Your task to perform on an android device: Open settings on Google Maps Image 0: 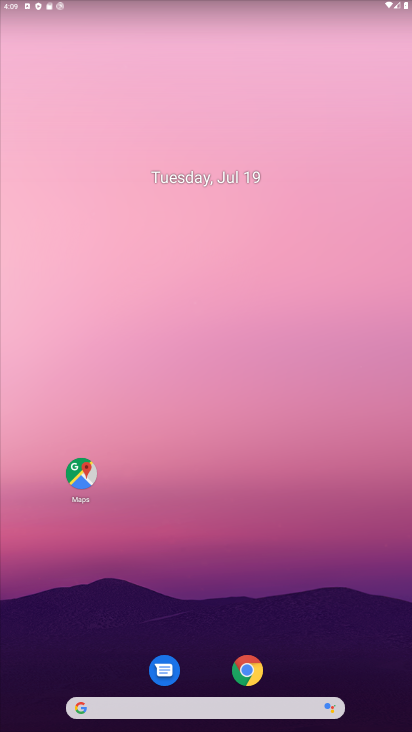
Step 0: drag from (317, 689) to (210, 12)
Your task to perform on an android device: Open settings on Google Maps Image 1: 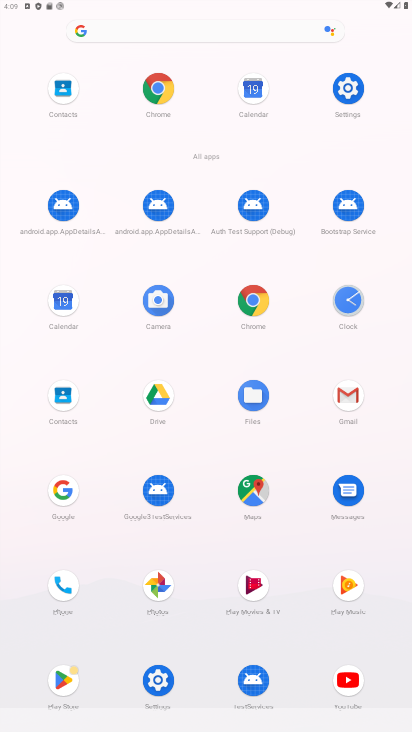
Step 1: click (258, 492)
Your task to perform on an android device: Open settings on Google Maps Image 2: 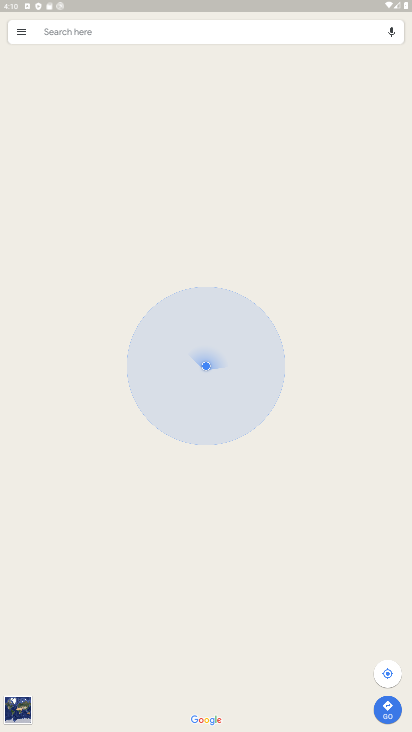
Step 2: click (10, 24)
Your task to perform on an android device: Open settings on Google Maps Image 3: 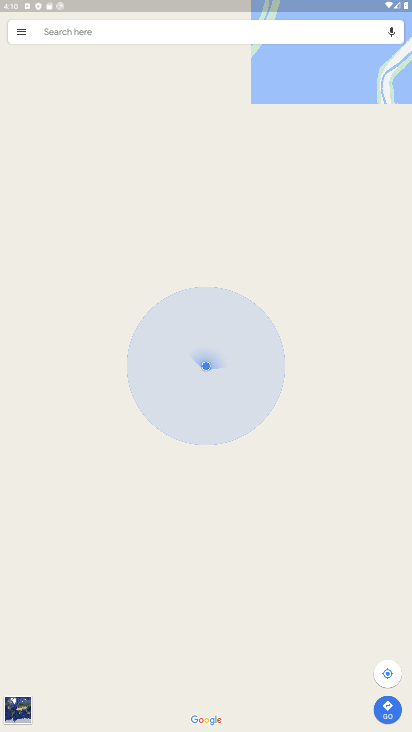
Step 3: click (18, 30)
Your task to perform on an android device: Open settings on Google Maps Image 4: 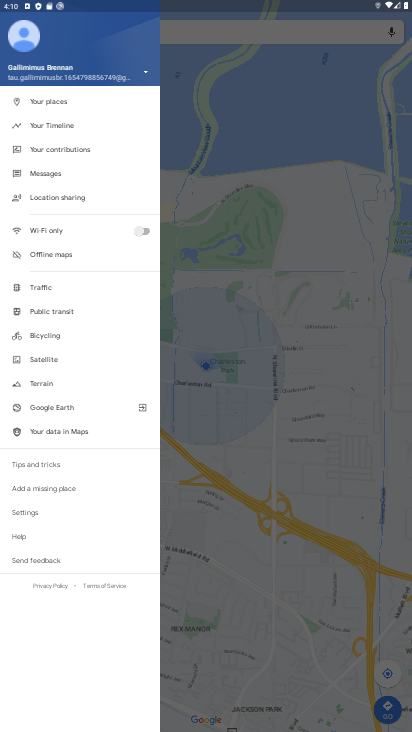
Step 4: click (21, 30)
Your task to perform on an android device: Open settings on Google Maps Image 5: 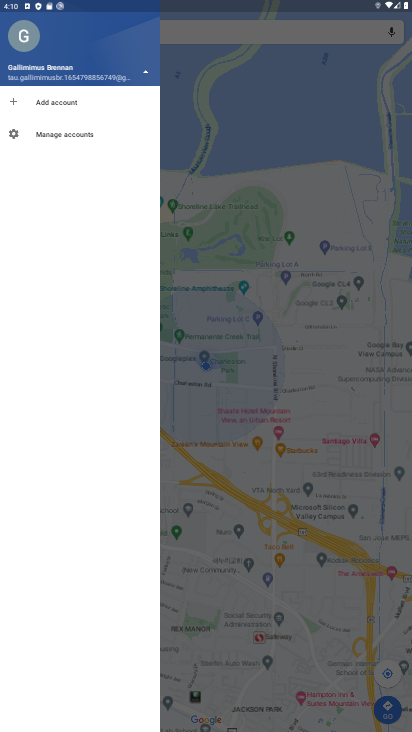
Step 5: click (121, 73)
Your task to perform on an android device: Open settings on Google Maps Image 6: 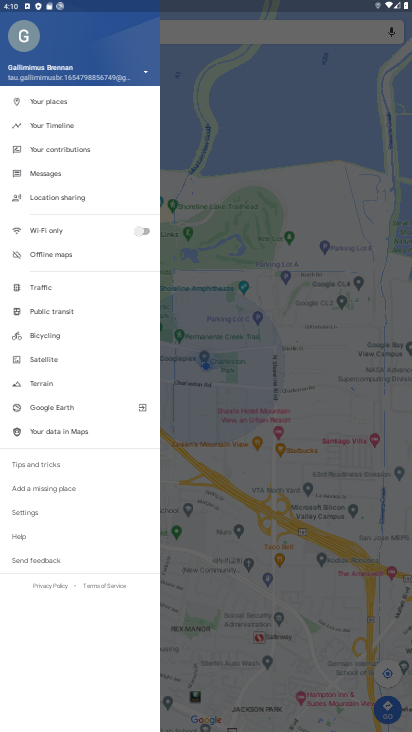
Step 6: click (42, 511)
Your task to perform on an android device: Open settings on Google Maps Image 7: 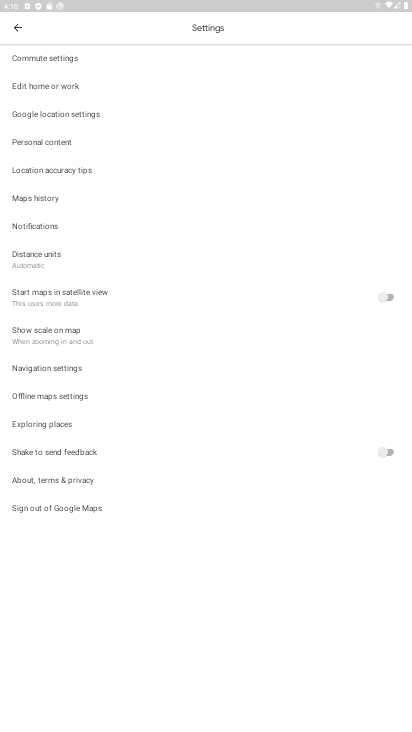
Step 7: task complete